Your task to perform on an android device: Add "jbl charge 4" to the cart on target.com Image 0: 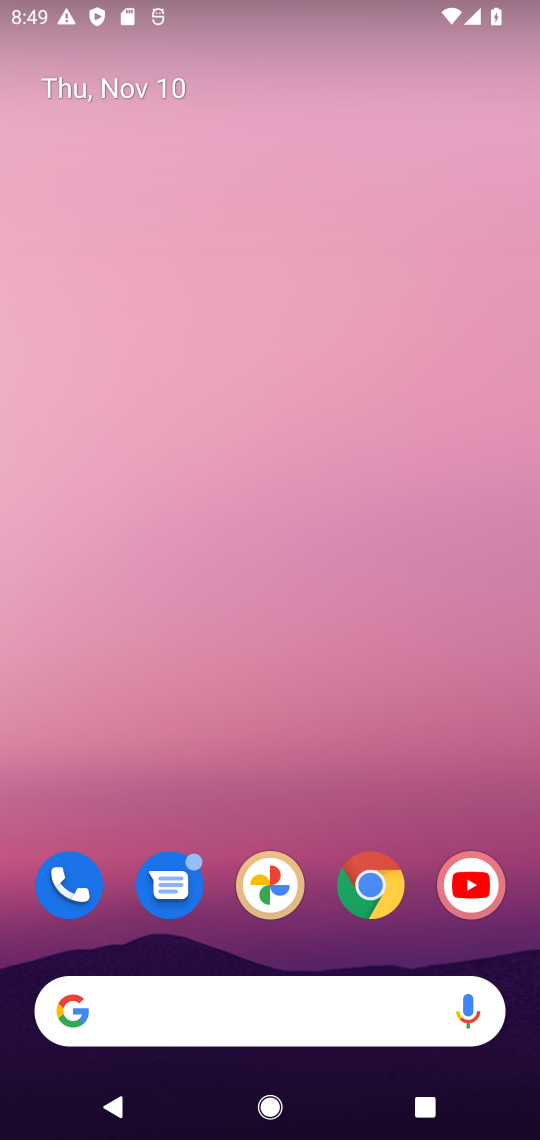
Step 0: click (370, 886)
Your task to perform on an android device: Add "jbl charge 4" to the cart on target.com Image 1: 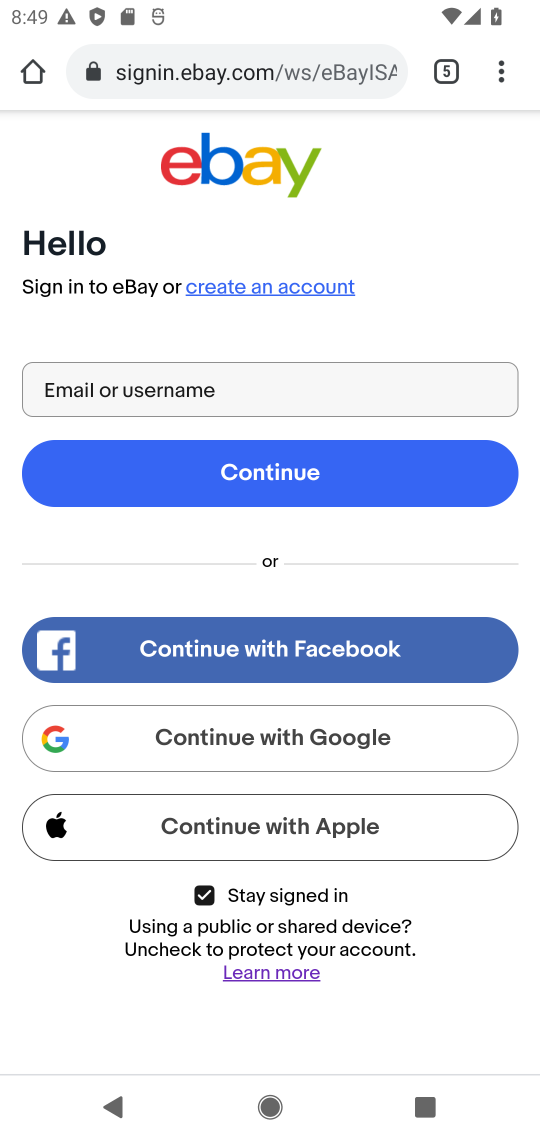
Step 1: click (454, 64)
Your task to perform on an android device: Add "jbl charge 4" to the cart on target.com Image 2: 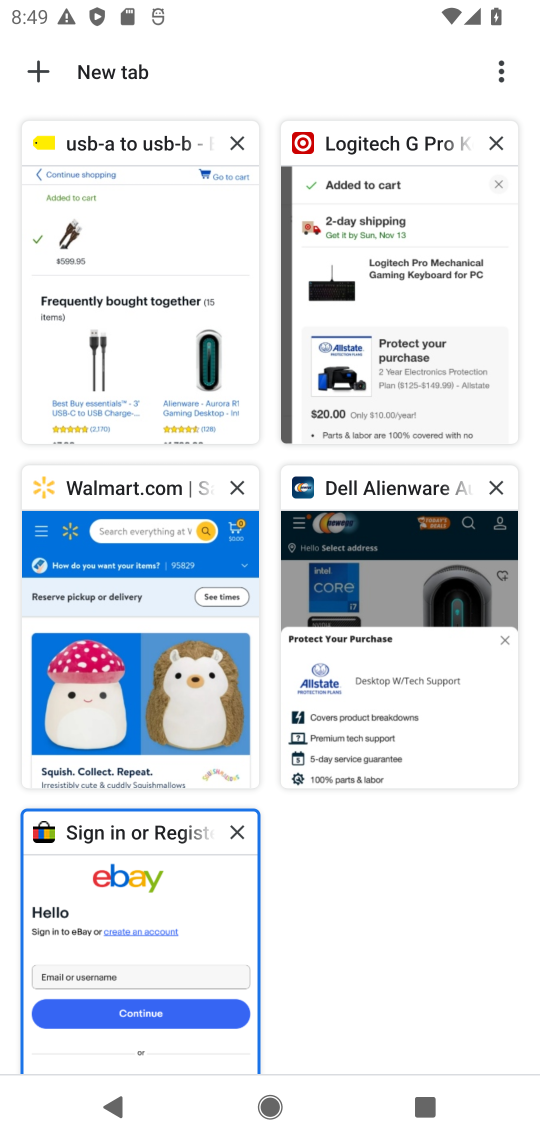
Step 2: click (327, 266)
Your task to perform on an android device: Add "jbl charge 4" to the cart on target.com Image 3: 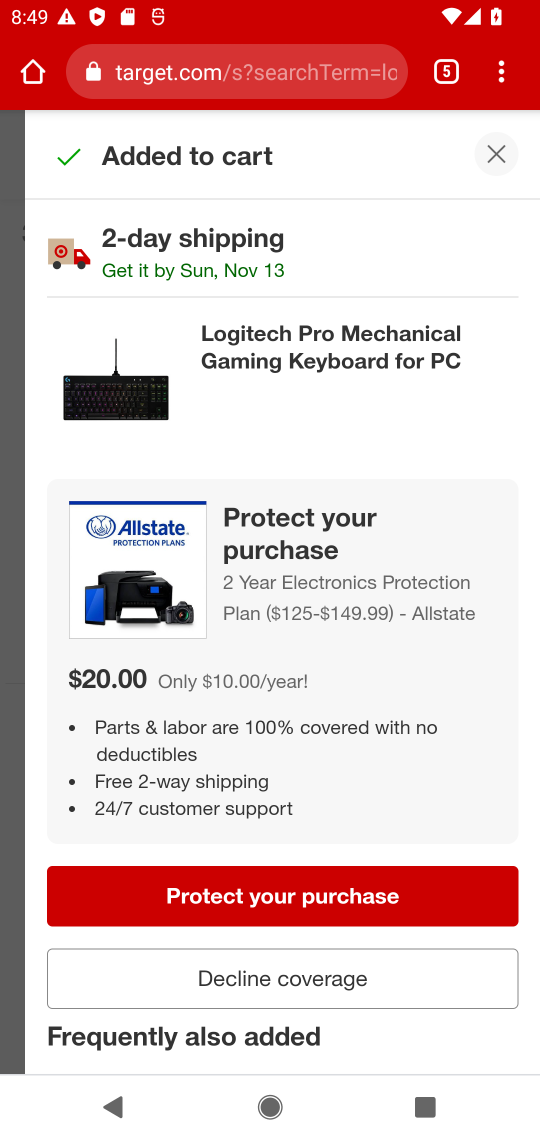
Step 3: click (496, 153)
Your task to perform on an android device: Add "jbl charge 4" to the cart on target.com Image 4: 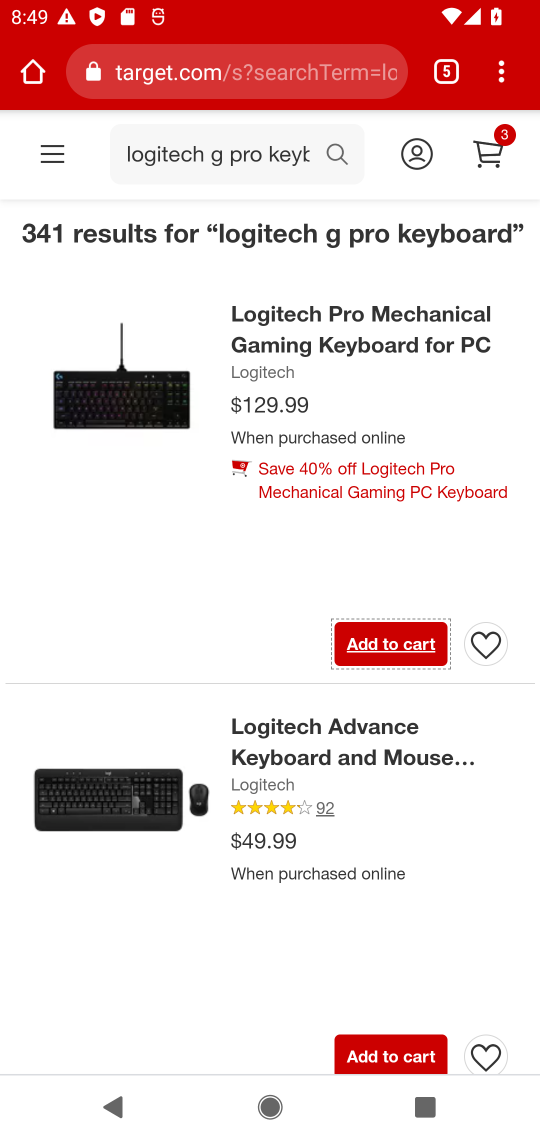
Step 4: click (290, 154)
Your task to perform on an android device: Add "jbl charge 4" to the cart on target.com Image 5: 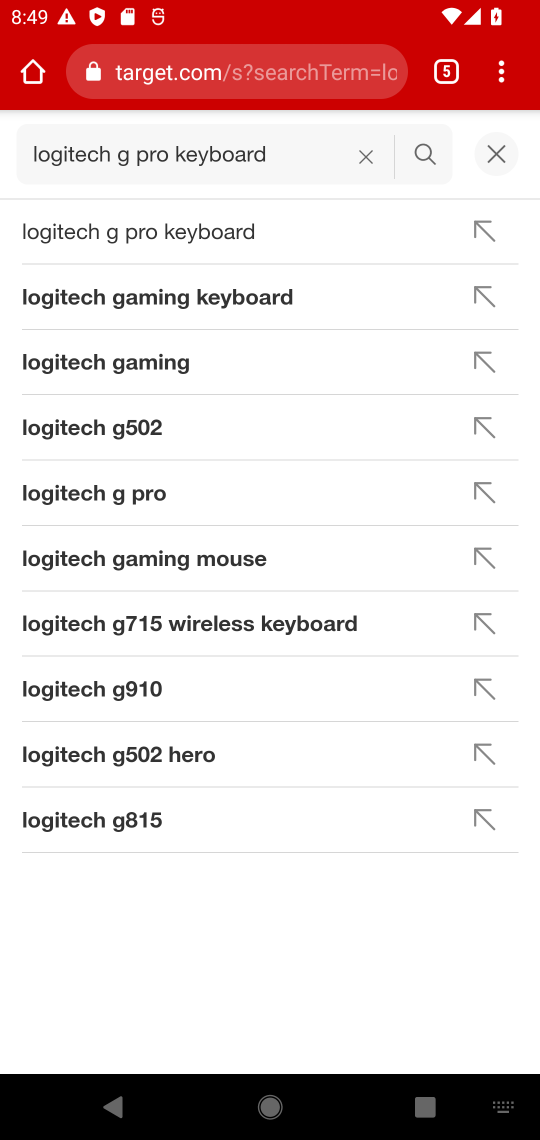
Step 5: click (362, 163)
Your task to perform on an android device: Add "jbl charge 4" to the cart on target.com Image 6: 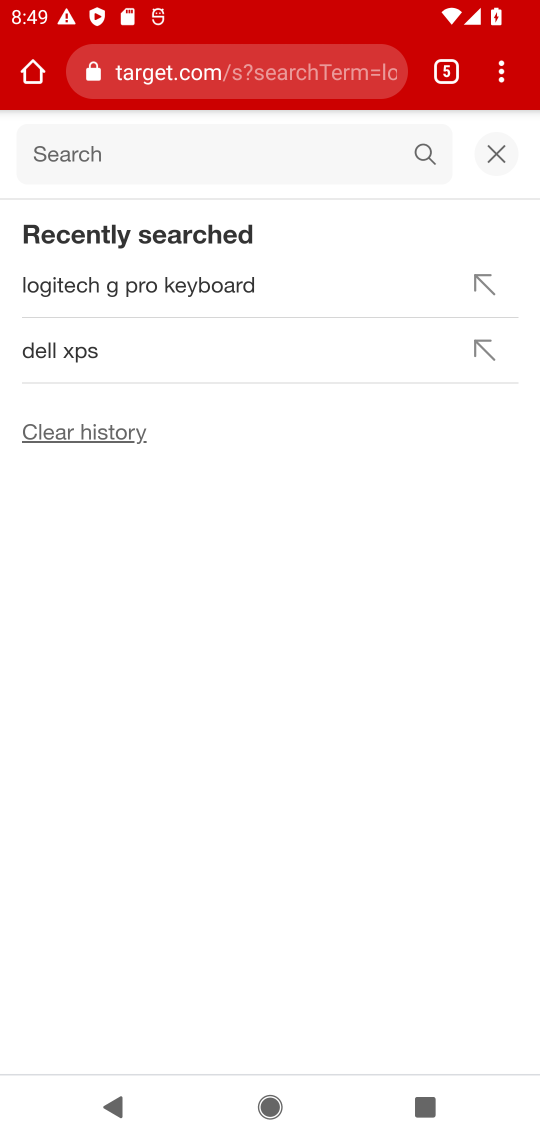
Step 6: type "jbl charge 4"
Your task to perform on an android device: Add "jbl charge 4" to the cart on target.com Image 7: 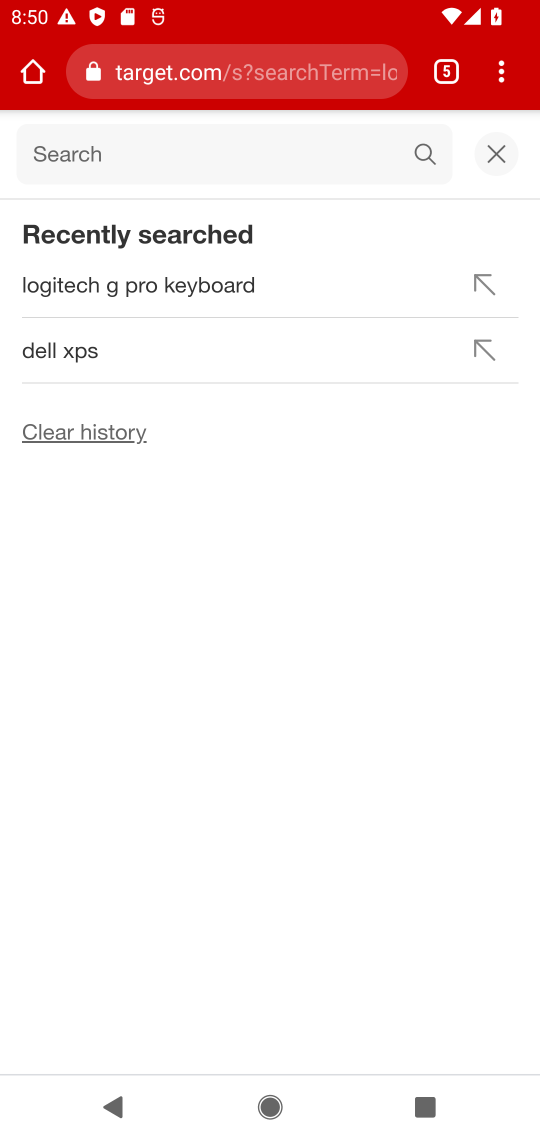
Step 7: click (131, 147)
Your task to perform on an android device: Add "jbl charge 4" to the cart on target.com Image 8: 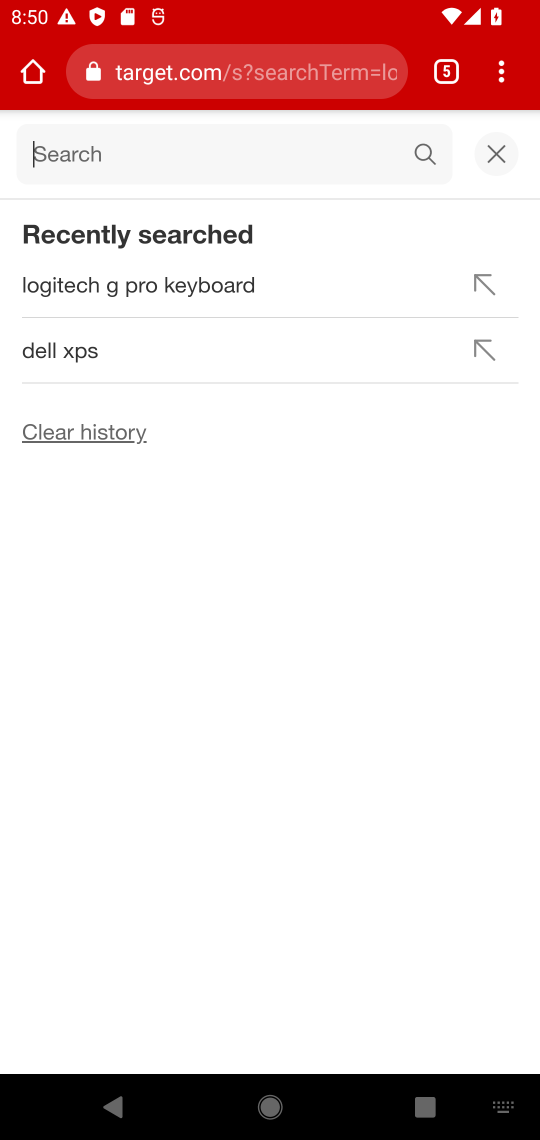
Step 8: type "jbl charge 4"
Your task to perform on an android device: Add "jbl charge 4" to the cart on target.com Image 9: 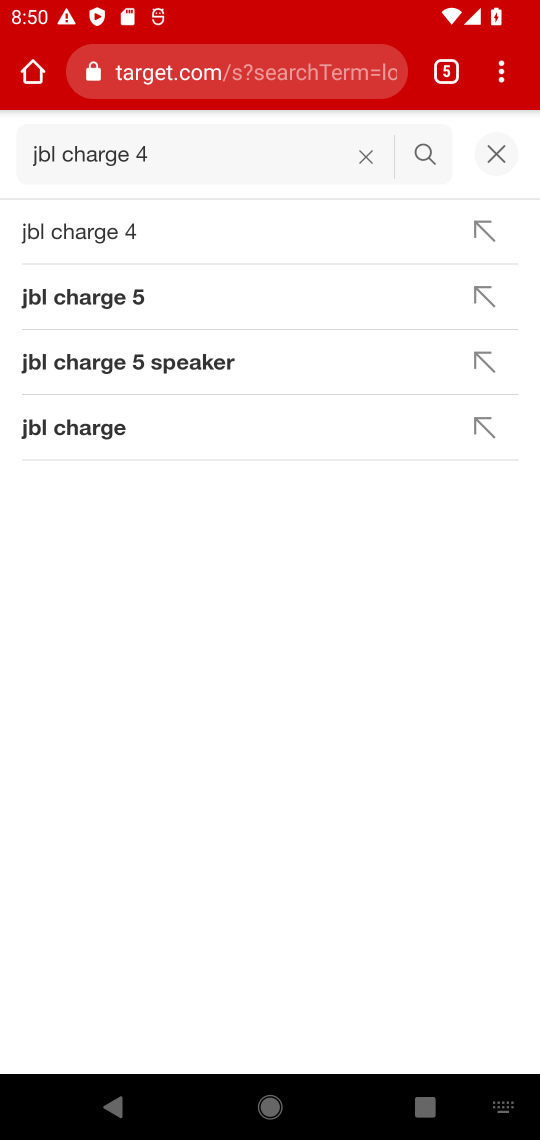
Step 9: click (93, 230)
Your task to perform on an android device: Add "jbl charge 4" to the cart on target.com Image 10: 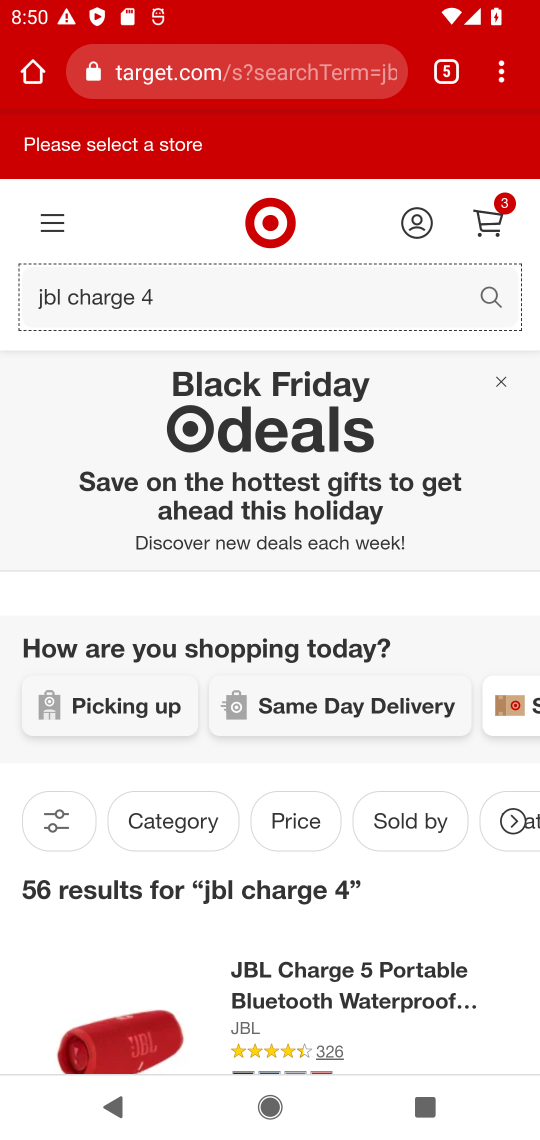
Step 10: drag from (343, 931) to (443, 529)
Your task to perform on an android device: Add "jbl charge 4" to the cart on target.com Image 11: 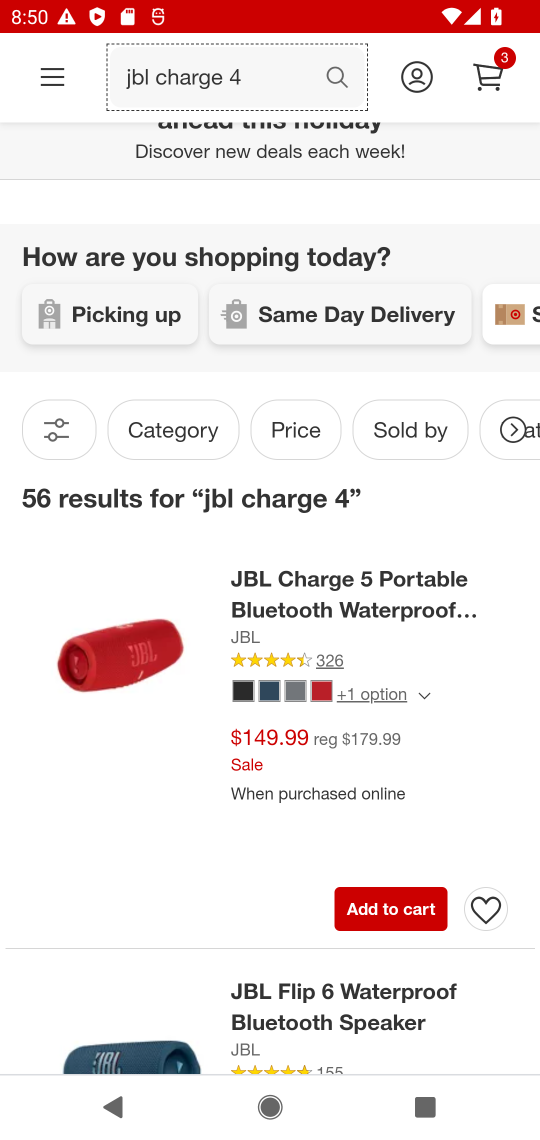
Step 11: click (396, 915)
Your task to perform on an android device: Add "jbl charge 4" to the cart on target.com Image 12: 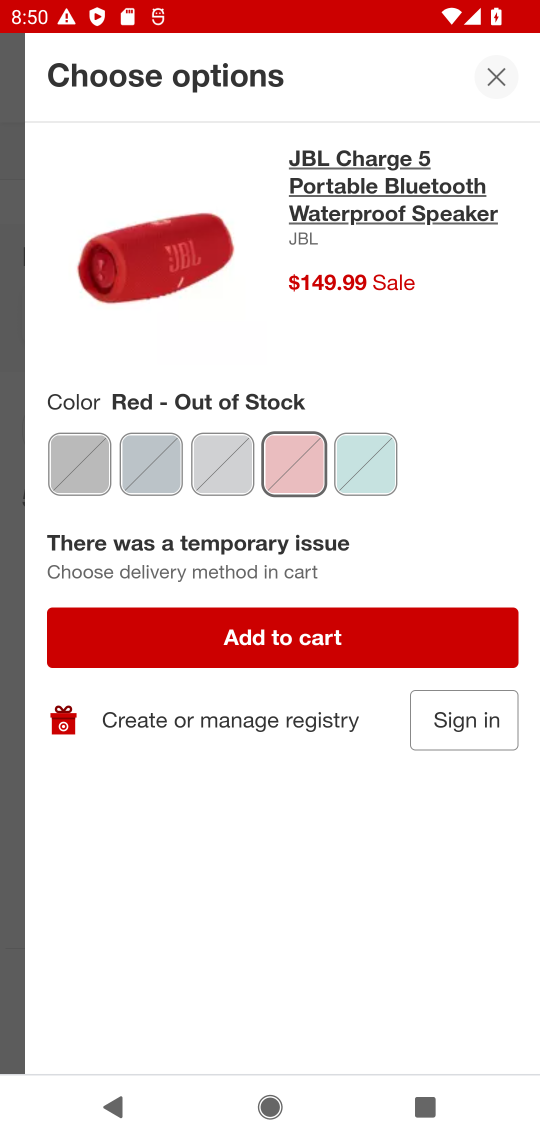
Step 12: task complete